Your task to perform on an android device: Is it going to rain tomorrow? Image 0: 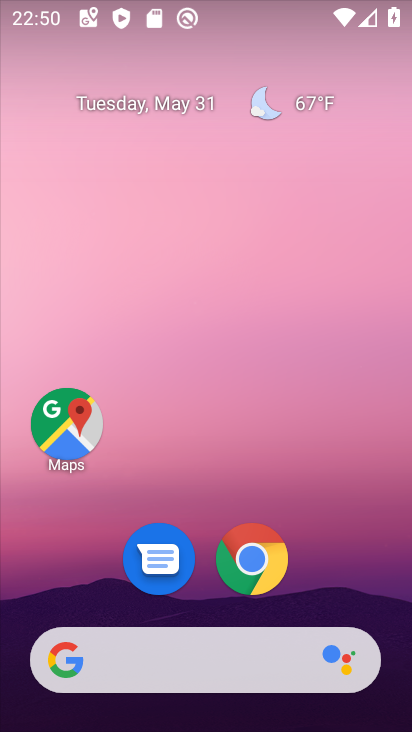
Step 0: drag from (310, 541) to (320, 73)
Your task to perform on an android device: Is it going to rain tomorrow? Image 1: 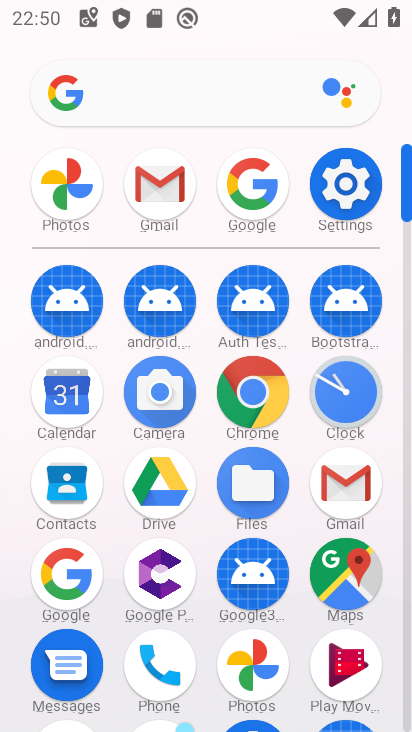
Step 1: click (254, 193)
Your task to perform on an android device: Is it going to rain tomorrow? Image 2: 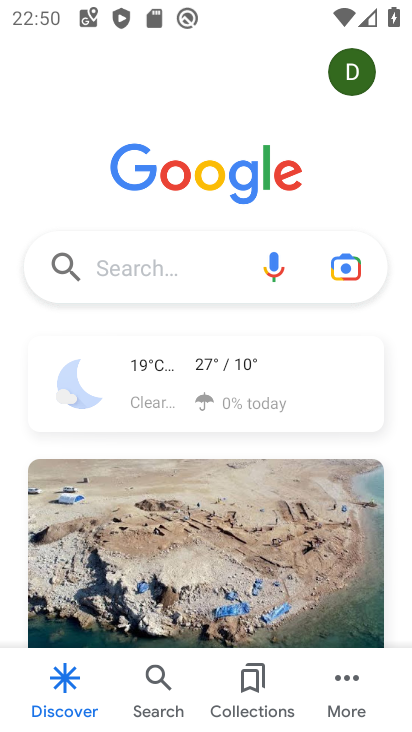
Step 2: click (169, 266)
Your task to perform on an android device: Is it going to rain tomorrow? Image 3: 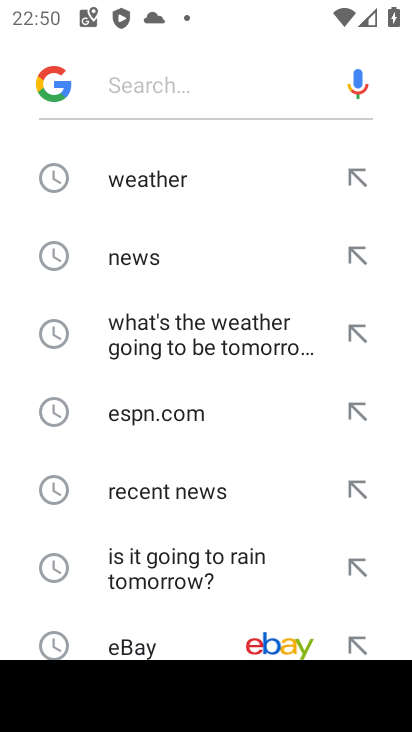
Step 3: drag from (164, 555) to (165, 377)
Your task to perform on an android device: Is it going to rain tomorrow? Image 4: 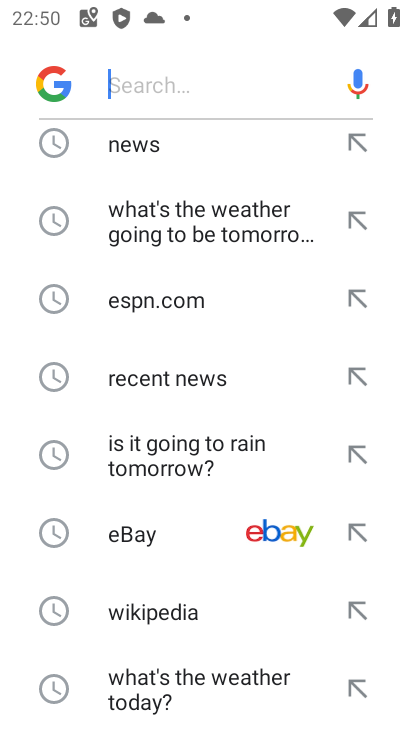
Step 4: click (242, 462)
Your task to perform on an android device: Is it going to rain tomorrow? Image 5: 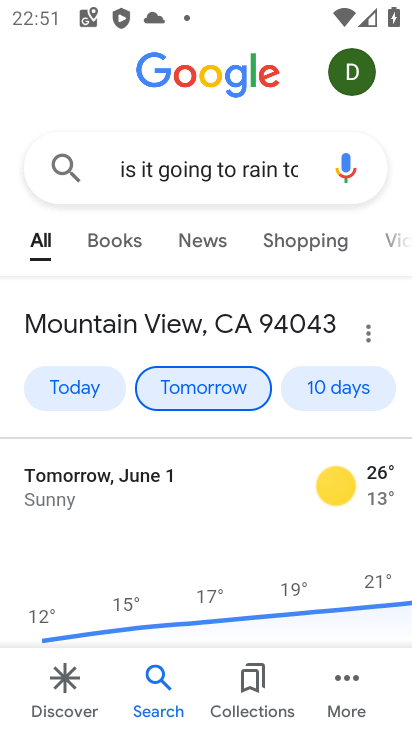
Step 5: task complete